Your task to perform on an android device: Turn on the flashlight Image 0: 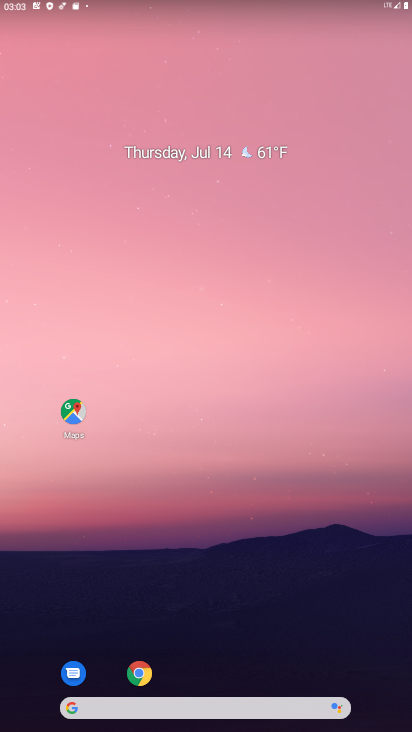
Step 0: drag from (299, 652) to (295, 266)
Your task to perform on an android device: Turn on the flashlight Image 1: 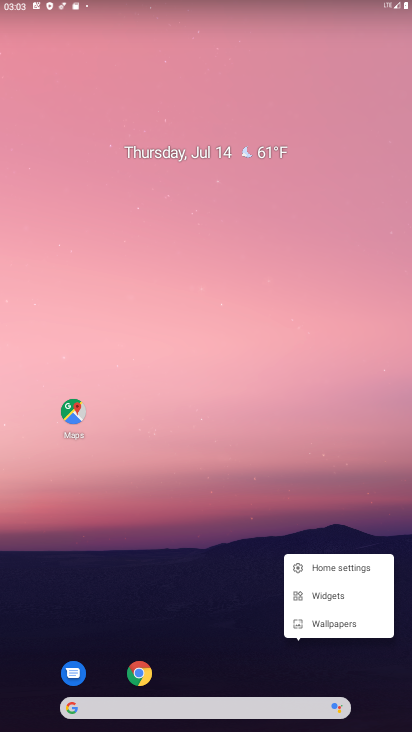
Step 1: click (237, 432)
Your task to perform on an android device: Turn on the flashlight Image 2: 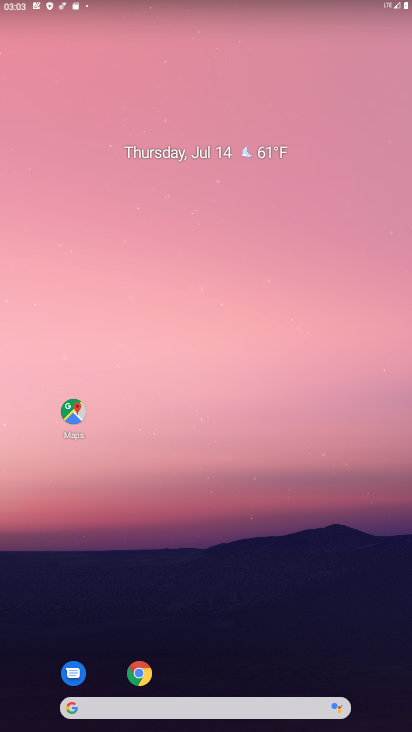
Step 2: drag from (237, 597) to (277, 168)
Your task to perform on an android device: Turn on the flashlight Image 3: 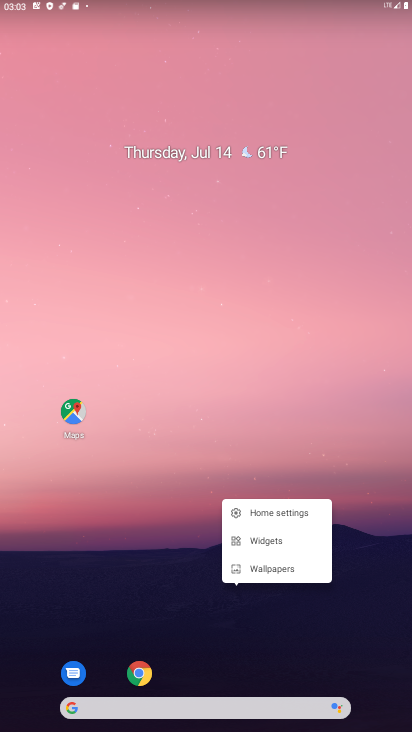
Step 3: click (303, 622)
Your task to perform on an android device: Turn on the flashlight Image 4: 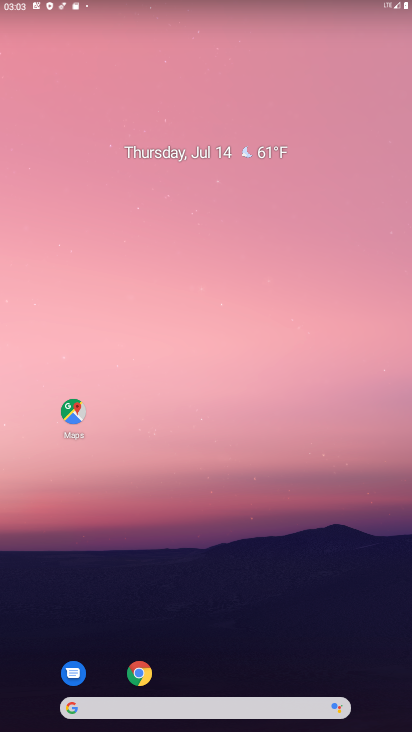
Step 4: drag from (303, 622) to (211, 24)
Your task to perform on an android device: Turn on the flashlight Image 5: 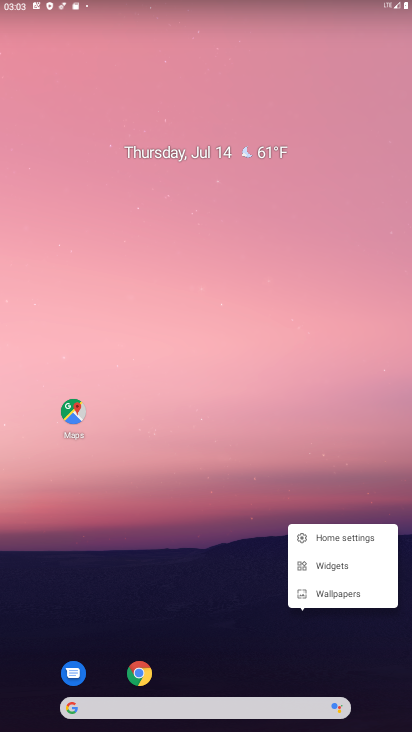
Step 5: click (215, 496)
Your task to perform on an android device: Turn on the flashlight Image 6: 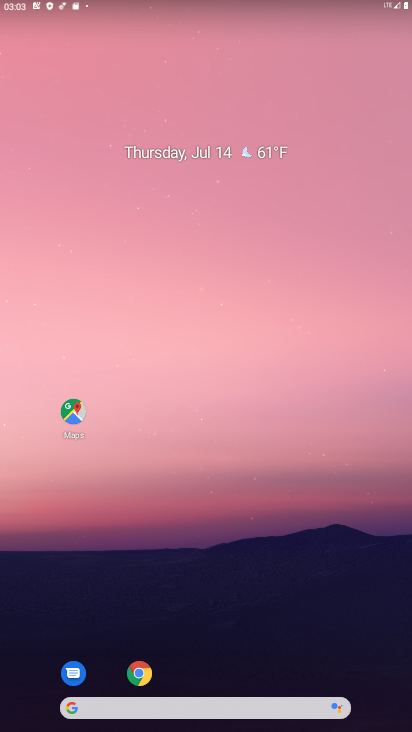
Step 6: drag from (224, 584) to (213, 109)
Your task to perform on an android device: Turn on the flashlight Image 7: 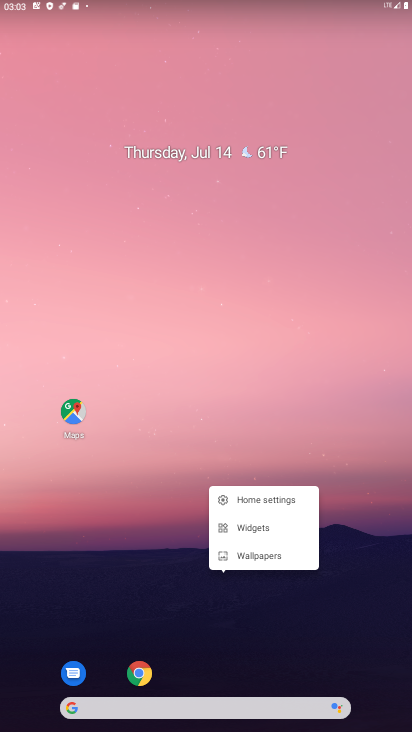
Step 7: click (213, 109)
Your task to perform on an android device: Turn on the flashlight Image 8: 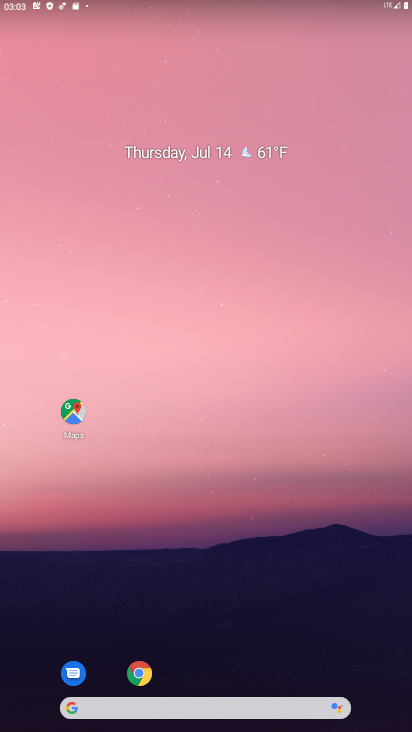
Step 8: drag from (221, 552) to (194, 24)
Your task to perform on an android device: Turn on the flashlight Image 9: 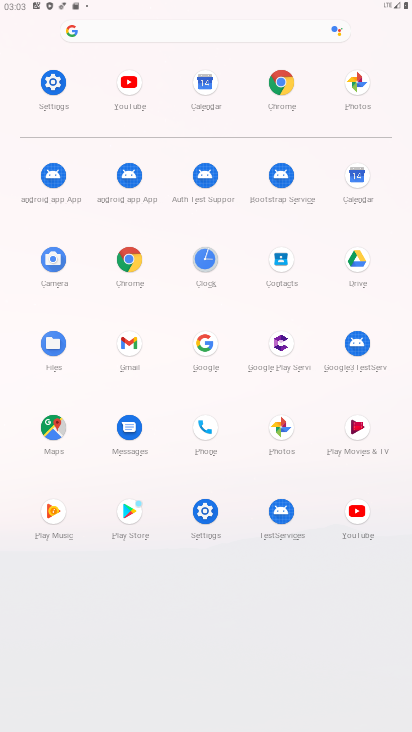
Step 9: click (48, 104)
Your task to perform on an android device: Turn on the flashlight Image 10: 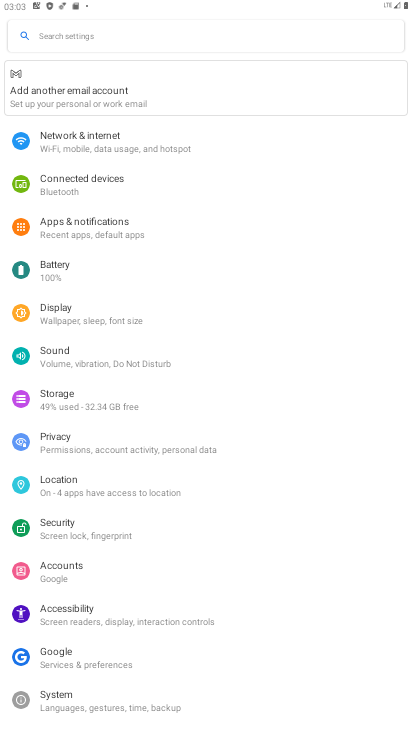
Step 10: click (212, 247)
Your task to perform on an android device: Turn on the flashlight Image 11: 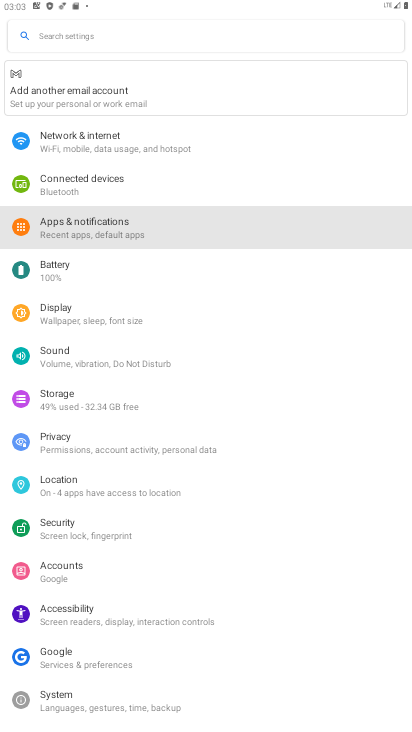
Step 11: task complete